Your task to perform on an android device: find snoozed emails in the gmail app Image 0: 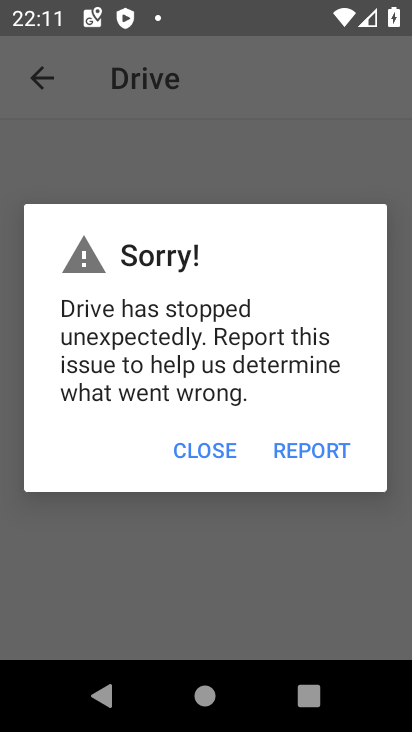
Step 0: press home button
Your task to perform on an android device: find snoozed emails in the gmail app Image 1: 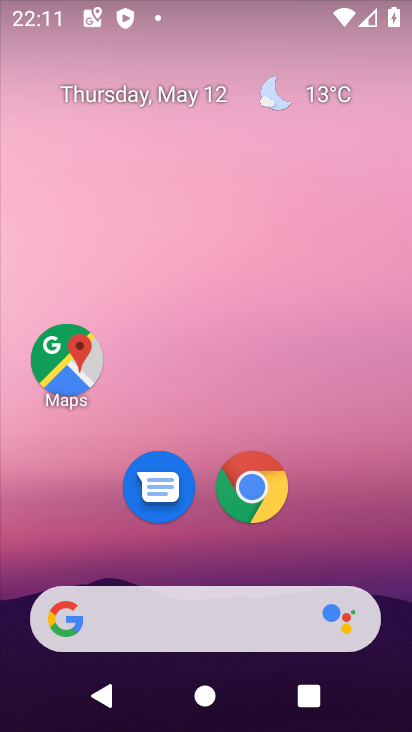
Step 1: drag from (246, 558) to (253, 147)
Your task to perform on an android device: find snoozed emails in the gmail app Image 2: 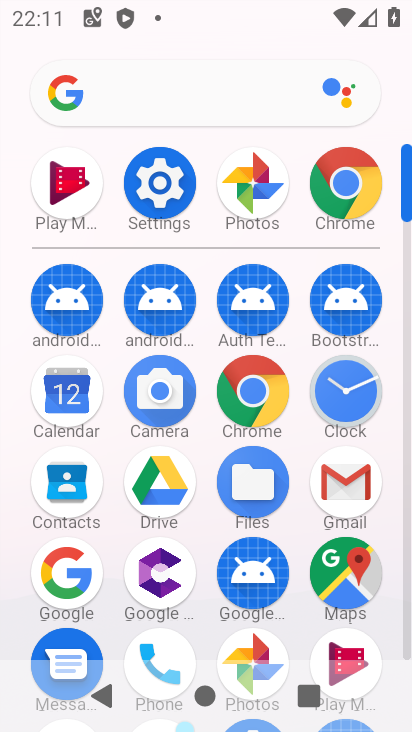
Step 2: click (331, 473)
Your task to perform on an android device: find snoozed emails in the gmail app Image 3: 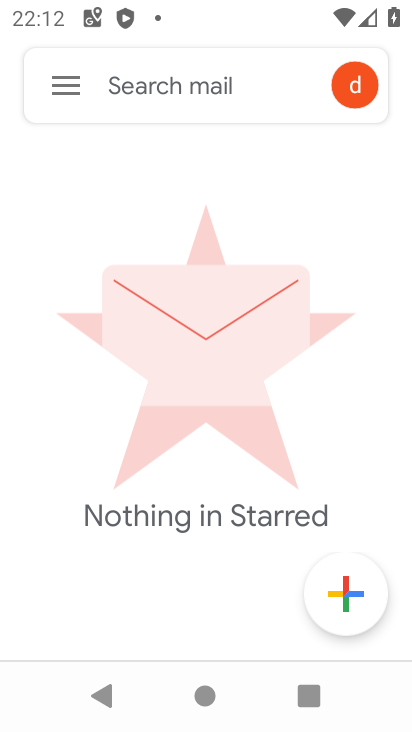
Step 3: click (85, 87)
Your task to perform on an android device: find snoozed emails in the gmail app Image 4: 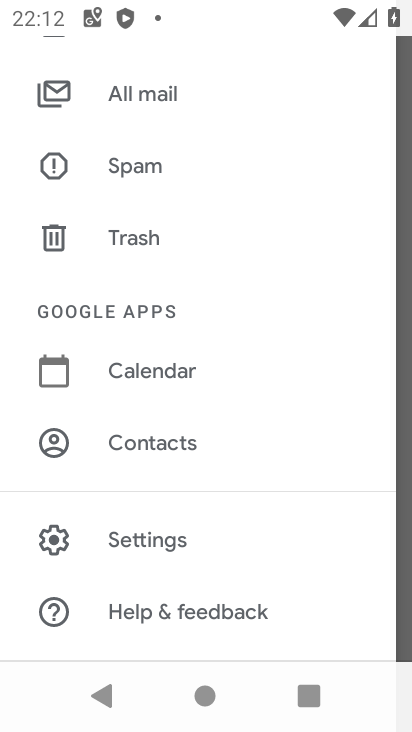
Step 4: drag from (183, 146) to (200, 606)
Your task to perform on an android device: find snoozed emails in the gmail app Image 5: 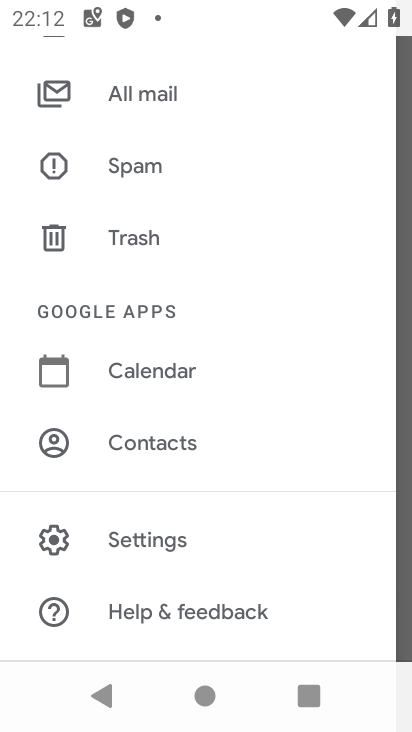
Step 5: drag from (271, 189) to (307, 646)
Your task to perform on an android device: find snoozed emails in the gmail app Image 6: 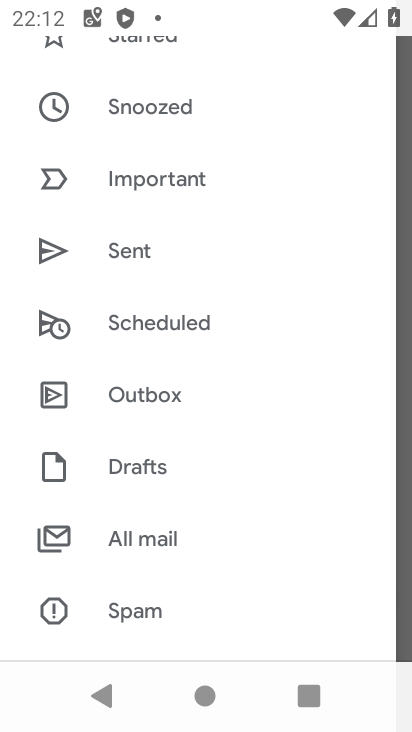
Step 6: click (198, 116)
Your task to perform on an android device: find snoozed emails in the gmail app Image 7: 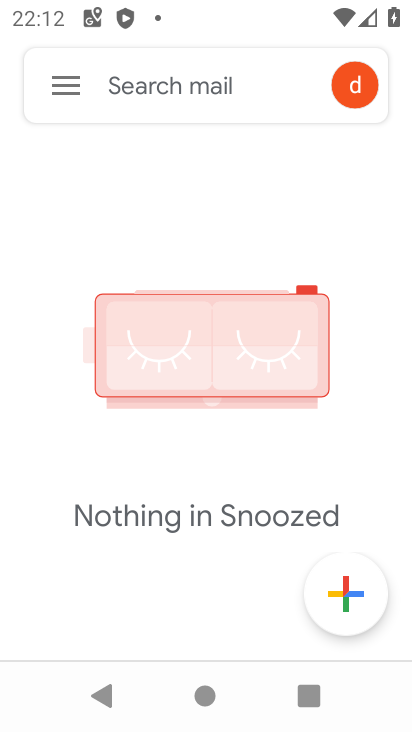
Step 7: task complete